Your task to perform on an android device: Do I have any events tomorrow? Image 0: 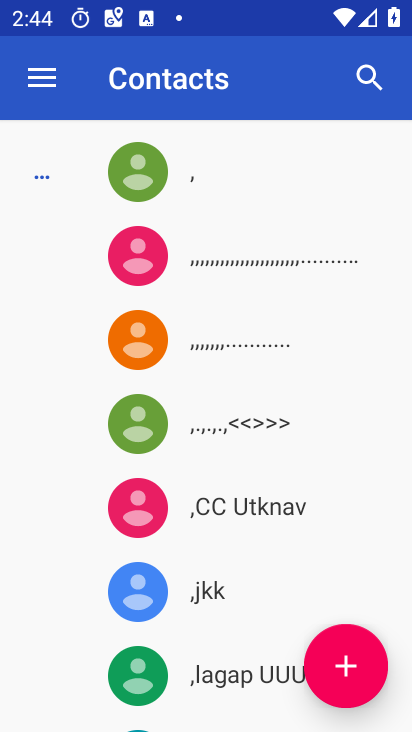
Step 0: press back button
Your task to perform on an android device: Do I have any events tomorrow? Image 1: 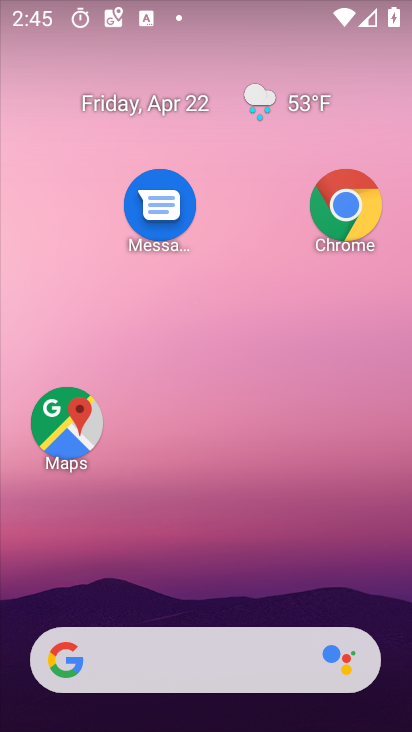
Step 1: drag from (210, 625) to (209, 313)
Your task to perform on an android device: Do I have any events tomorrow? Image 2: 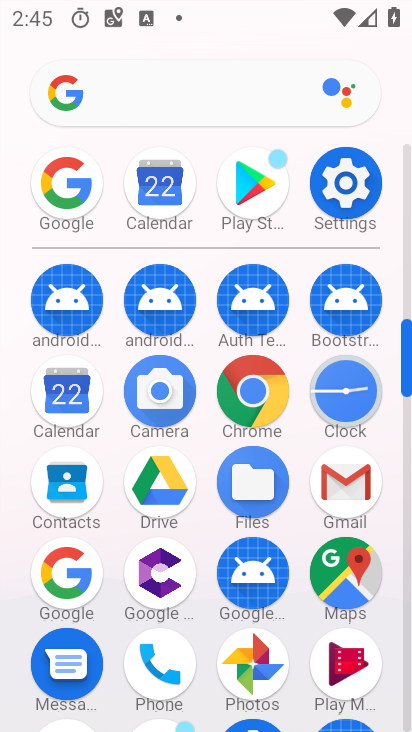
Step 2: click (54, 391)
Your task to perform on an android device: Do I have any events tomorrow? Image 3: 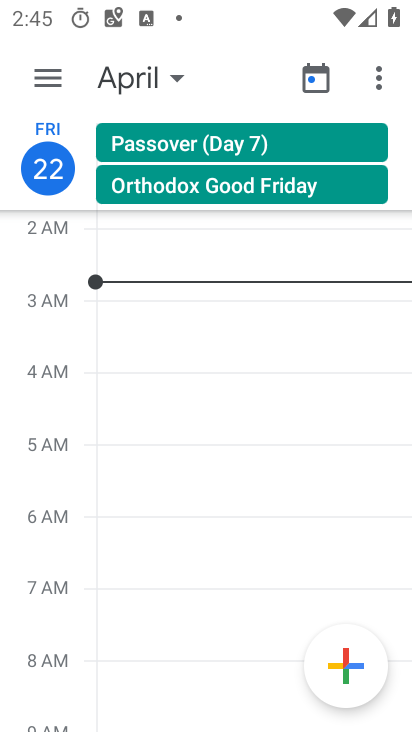
Step 3: click (148, 74)
Your task to perform on an android device: Do I have any events tomorrow? Image 4: 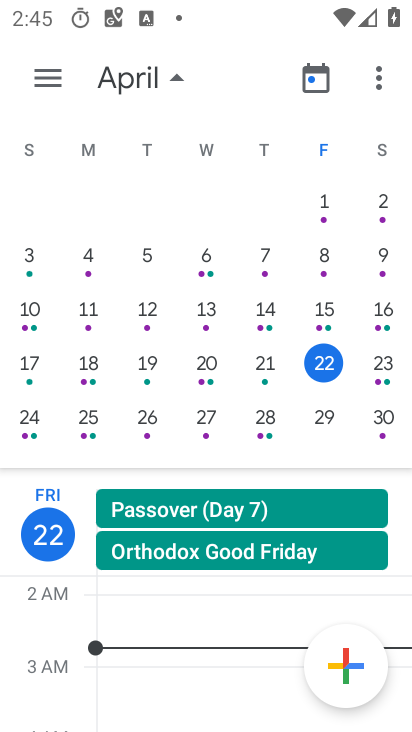
Step 4: click (380, 365)
Your task to perform on an android device: Do I have any events tomorrow? Image 5: 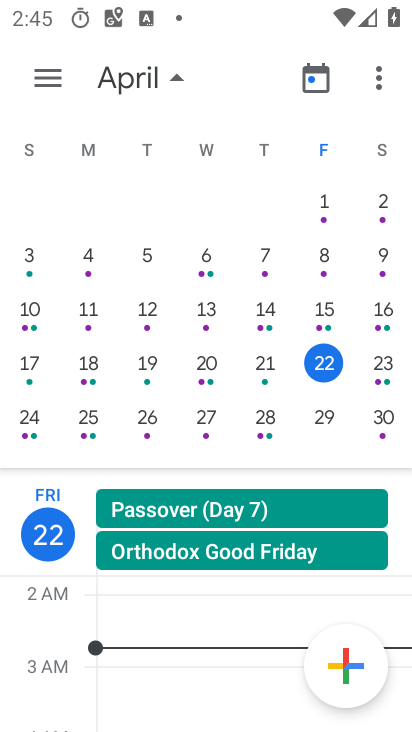
Step 5: click (383, 359)
Your task to perform on an android device: Do I have any events tomorrow? Image 6: 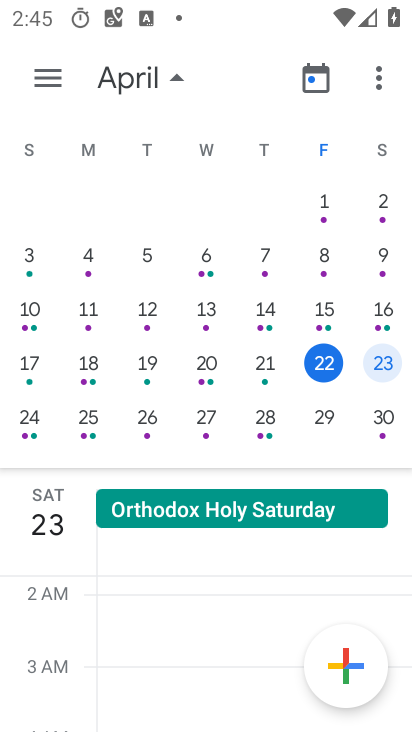
Step 6: task complete